Your task to perform on an android device: Open Wikipedia Image 0: 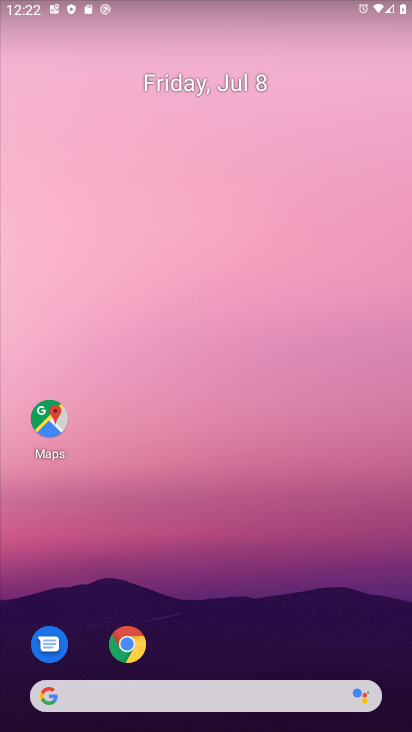
Step 0: drag from (190, 643) to (210, 62)
Your task to perform on an android device: Open Wikipedia Image 1: 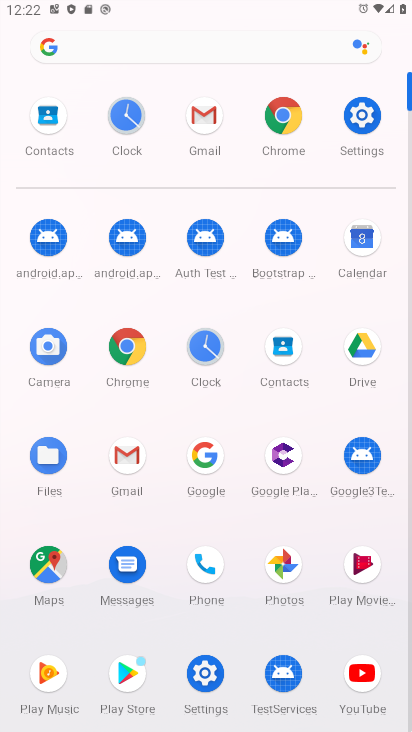
Step 1: click (133, 352)
Your task to perform on an android device: Open Wikipedia Image 2: 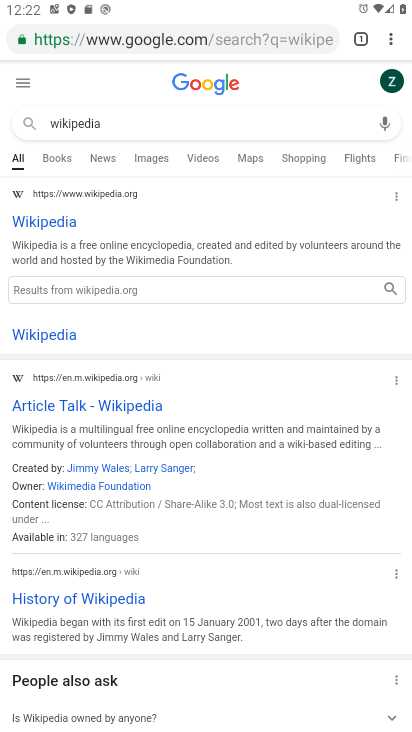
Step 2: click (67, 234)
Your task to perform on an android device: Open Wikipedia Image 3: 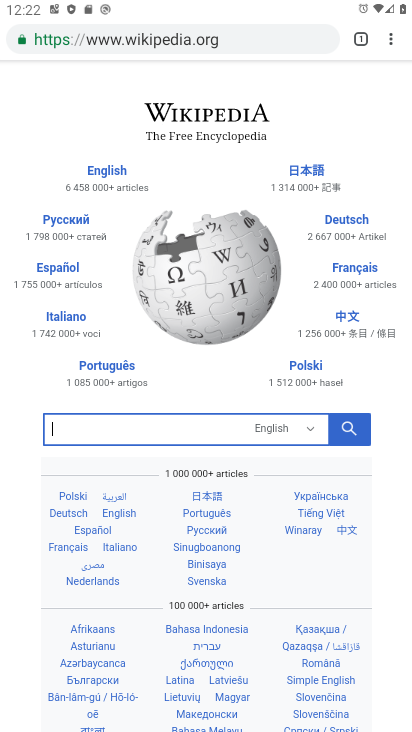
Step 3: task complete